Your task to perform on an android device: Open Maps and search for coffee Image 0: 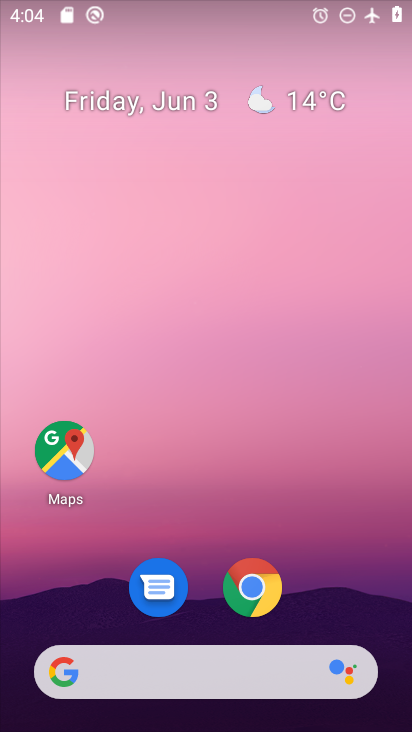
Step 0: drag from (215, 609) to (173, 166)
Your task to perform on an android device: Open Maps and search for coffee Image 1: 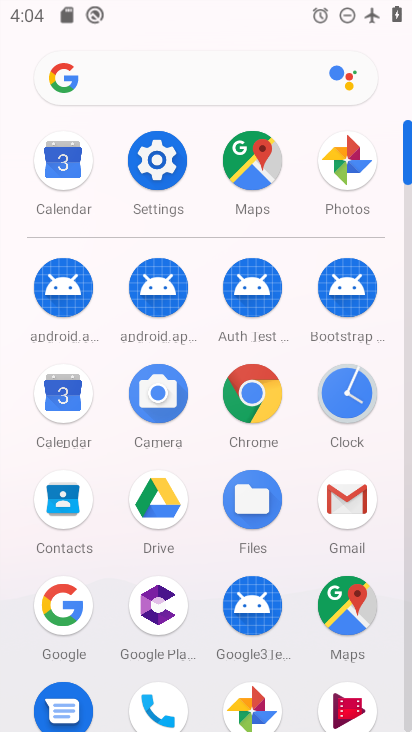
Step 1: click (354, 595)
Your task to perform on an android device: Open Maps and search for coffee Image 2: 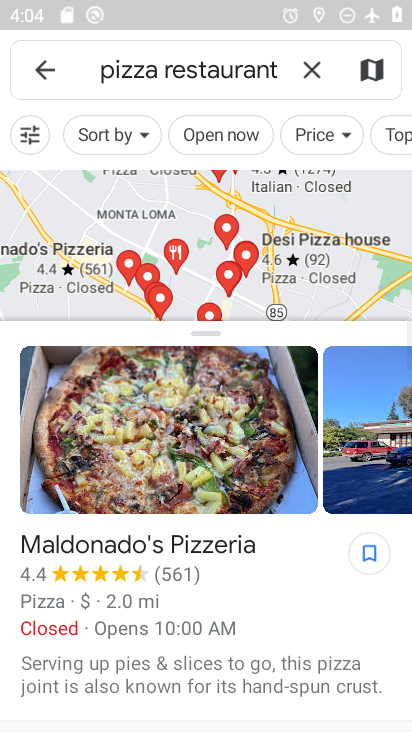
Step 2: click (309, 66)
Your task to perform on an android device: Open Maps and search for coffee Image 3: 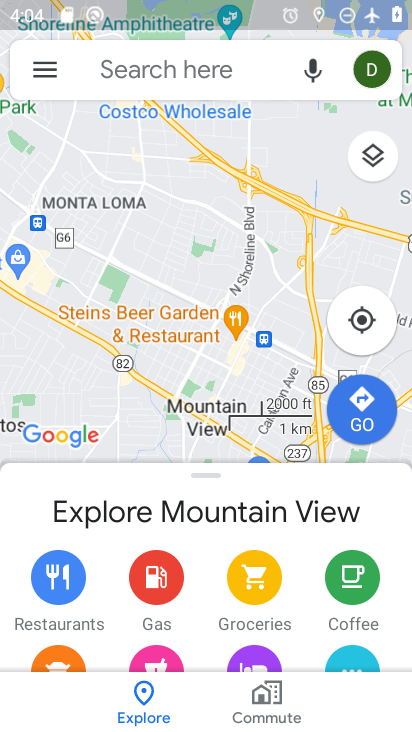
Step 3: click (221, 72)
Your task to perform on an android device: Open Maps and search for coffee Image 4: 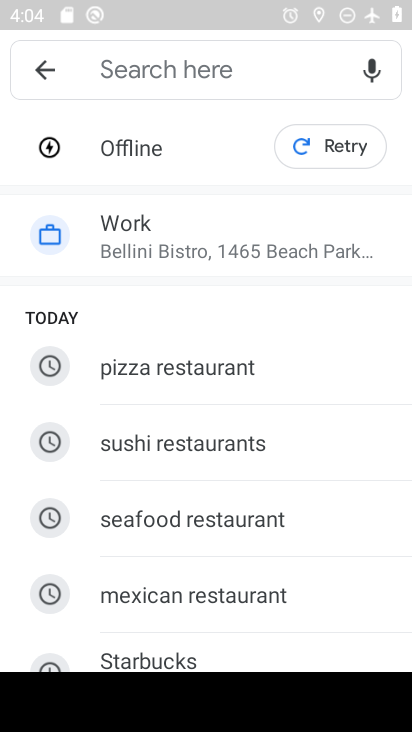
Step 4: type "coffee"
Your task to perform on an android device: Open Maps and search for coffee Image 5: 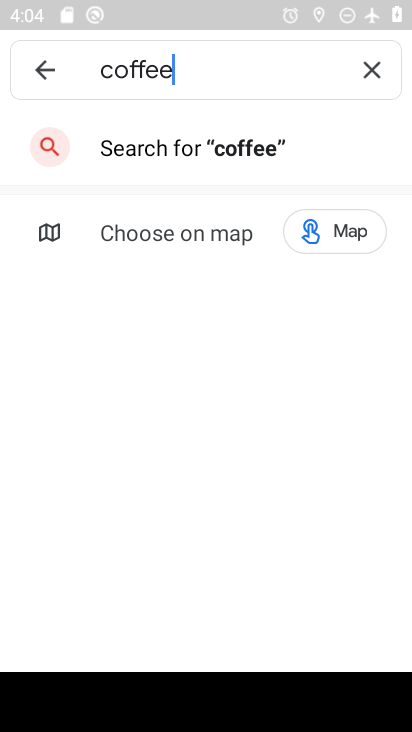
Step 5: click (238, 149)
Your task to perform on an android device: Open Maps and search for coffee Image 6: 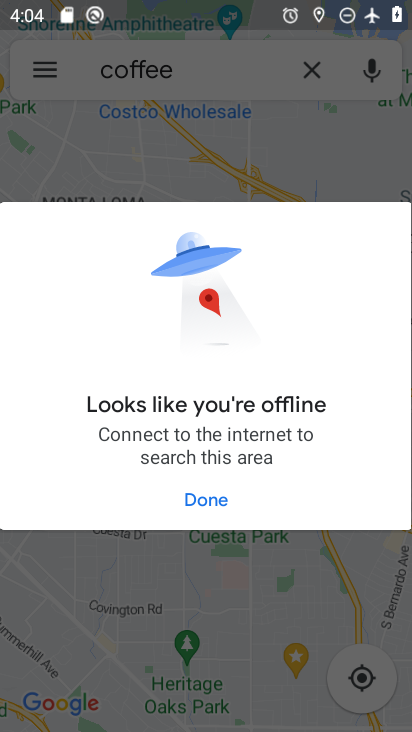
Step 6: task complete